Your task to perform on an android device: clear all cookies in the chrome app Image 0: 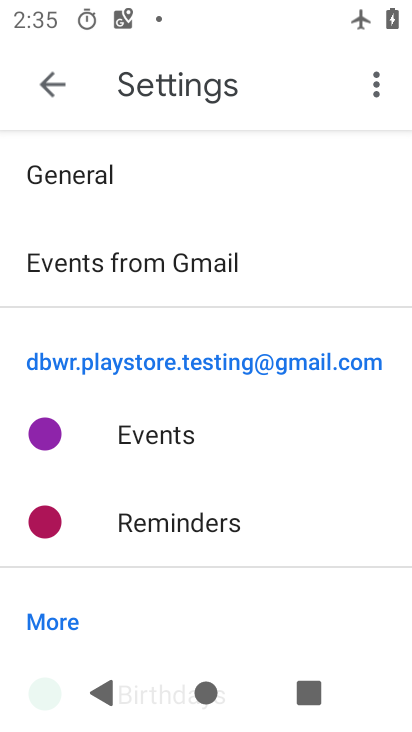
Step 0: press home button
Your task to perform on an android device: clear all cookies in the chrome app Image 1: 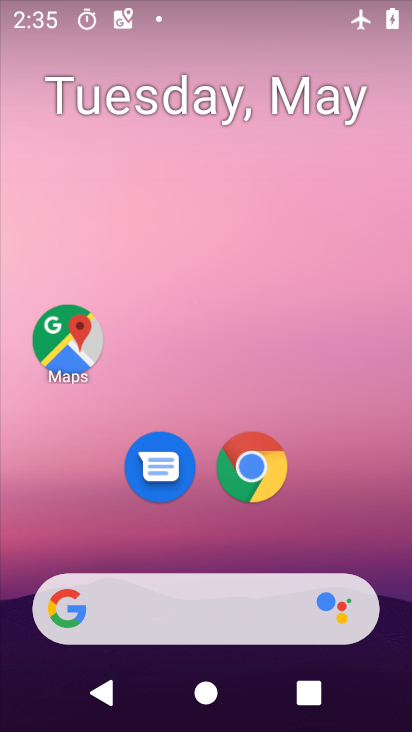
Step 1: drag from (363, 525) to (339, 114)
Your task to perform on an android device: clear all cookies in the chrome app Image 2: 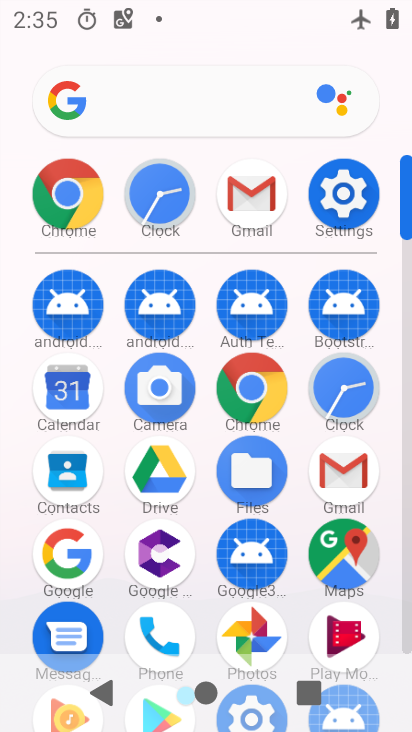
Step 2: click (279, 384)
Your task to perform on an android device: clear all cookies in the chrome app Image 3: 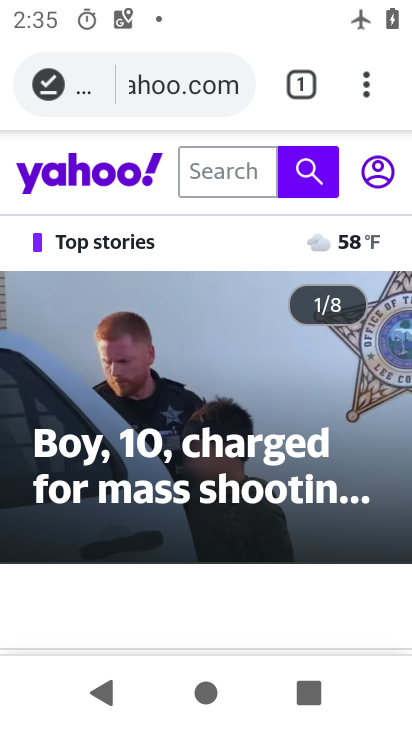
Step 3: click (366, 92)
Your task to perform on an android device: clear all cookies in the chrome app Image 4: 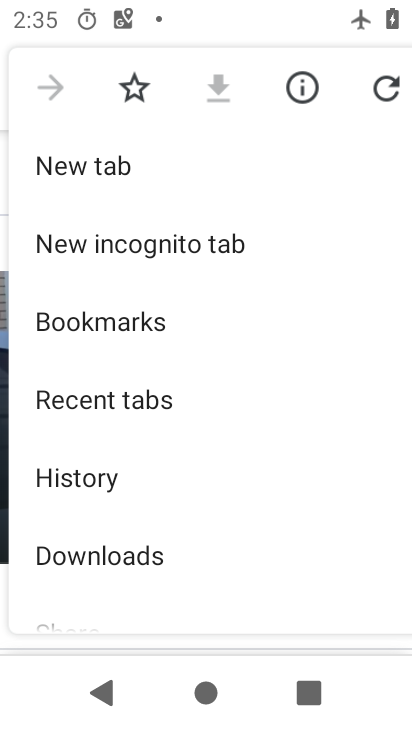
Step 4: drag from (303, 490) to (303, 304)
Your task to perform on an android device: clear all cookies in the chrome app Image 5: 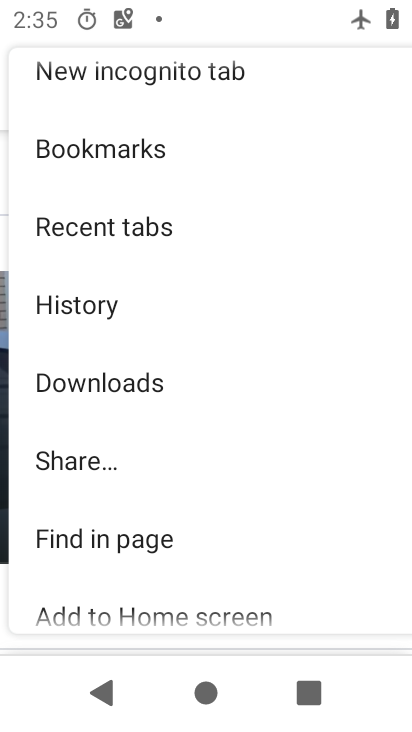
Step 5: drag from (319, 505) to (323, 314)
Your task to perform on an android device: clear all cookies in the chrome app Image 6: 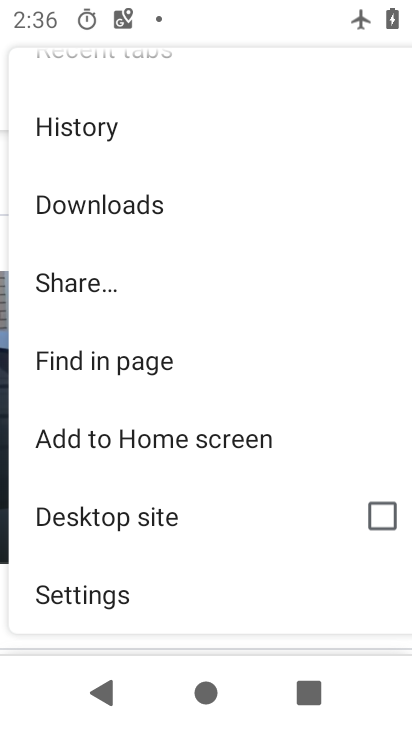
Step 6: drag from (269, 532) to (279, 303)
Your task to perform on an android device: clear all cookies in the chrome app Image 7: 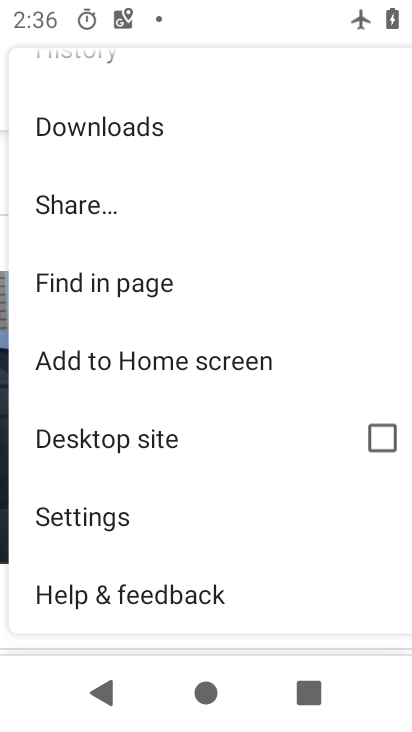
Step 7: click (104, 515)
Your task to perform on an android device: clear all cookies in the chrome app Image 8: 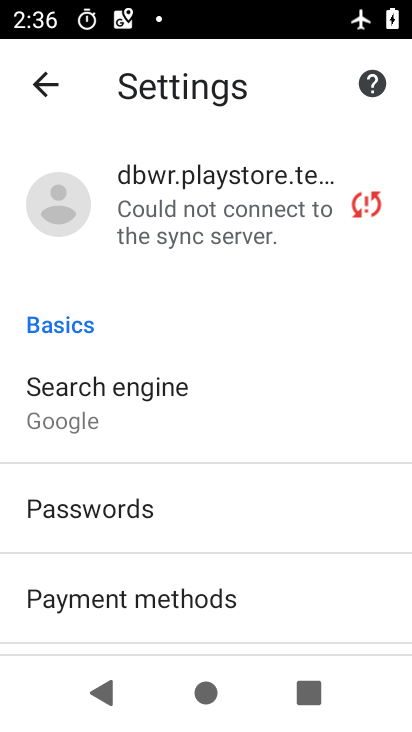
Step 8: drag from (320, 551) to (327, 407)
Your task to perform on an android device: clear all cookies in the chrome app Image 9: 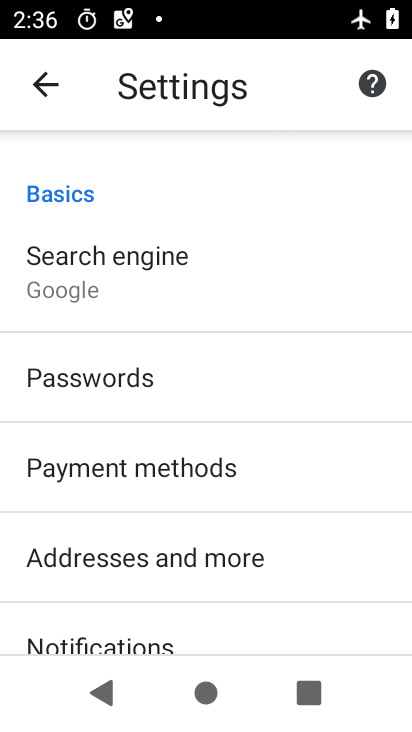
Step 9: drag from (335, 584) to (321, 379)
Your task to perform on an android device: clear all cookies in the chrome app Image 10: 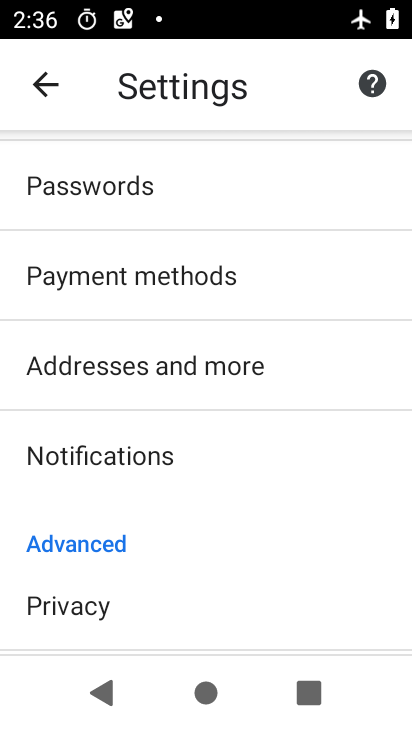
Step 10: drag from (339, 491) to (339, 325)
Your task to perform on an android device: clear all cookies in the chrome app Image 11: 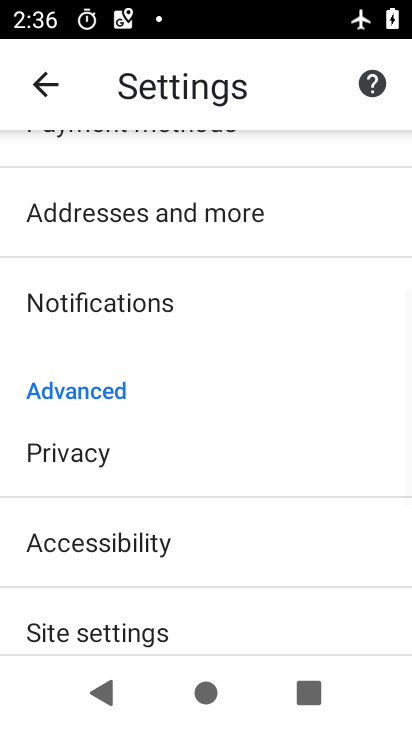
Step 11: drag from (327, 569) to (326, 385)
Your task to perform on an android device: clear all cookies in the chrome app Image 12: 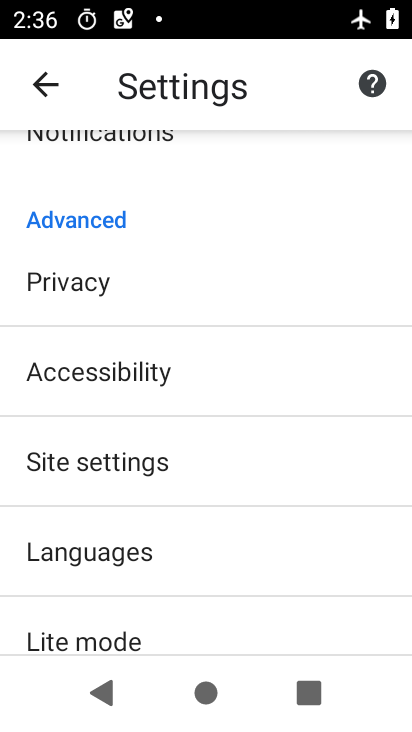
Step 12: drag from (310, 571) to (308, 458)
Your task to perform on an android device: clear all cookies in the chrome app Image 13: 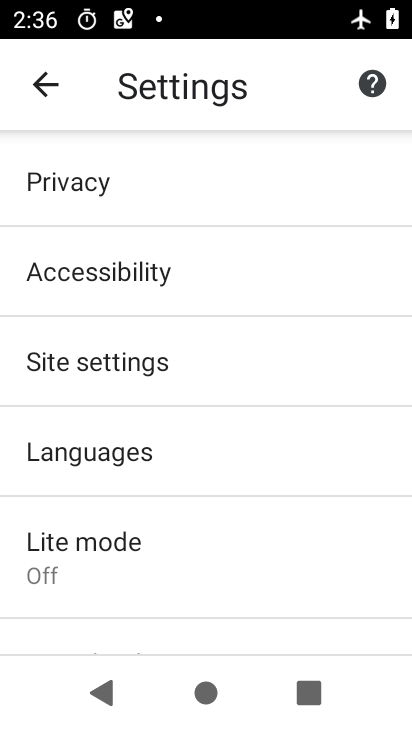
Step 13: click (251, 208)
Your task to perform on an android device: clear all cookies in the chrome app Image 14: 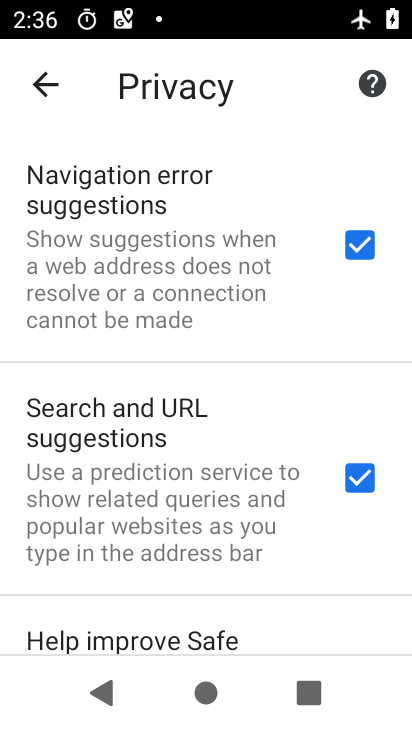
Step 14: drag from (281, 516) to (285, 417)
Your task to perform on an android device: clear all cookies in the chrome app Image 15: 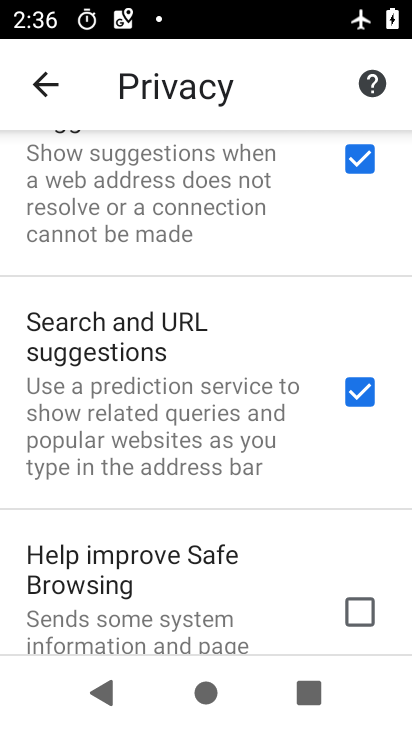
Step 15: drag from (278, 550) to (278, 441)
Your task to perform on an android device: clear all cookies in the chrome app Image 16: 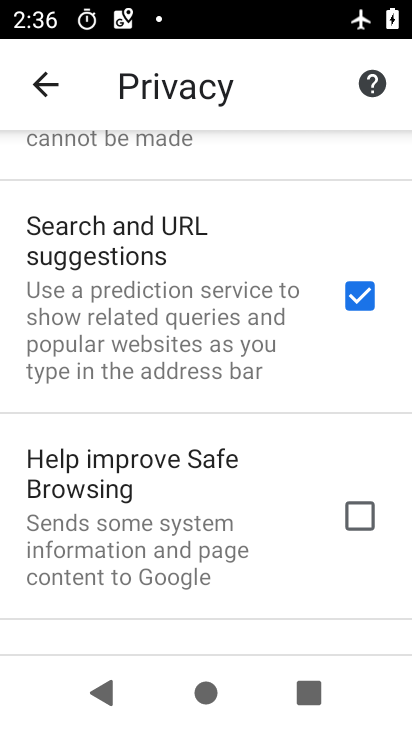
Step 16: drag from (264, 553) to (261, 429)
Your task to perform on an android device: clear all cookies in the chrome app Image 17: 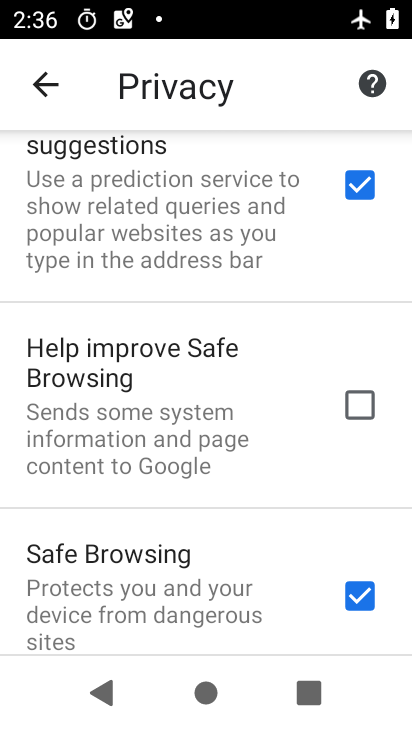
Step 17: drag from (263, 541) to (270, 294)
Your task to perform on an android device: clear all cookies in the chrome app Image 18: 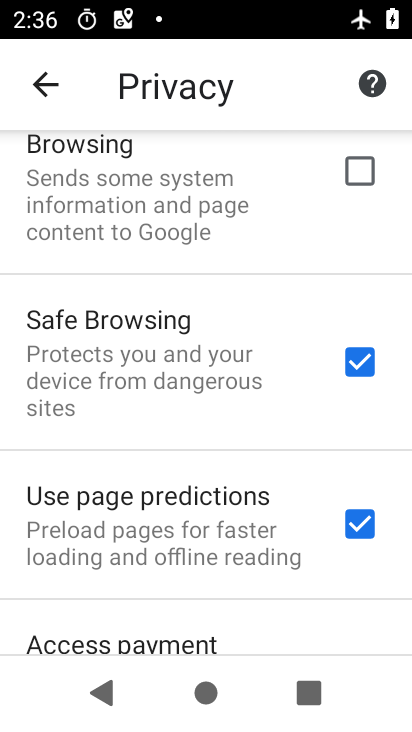
Step 18: drag from (302, 550) to (301, 384)
Your task to perform on an android device: clear all cookies in the chrome app Image 19: 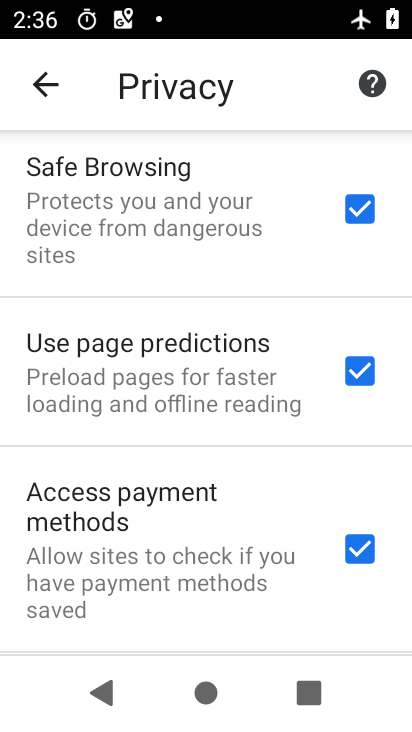
Step 19: drag from (301, 585) to (287, 388)
Your task to perform on an android device: clear all cookies in the chrome app Image 20: 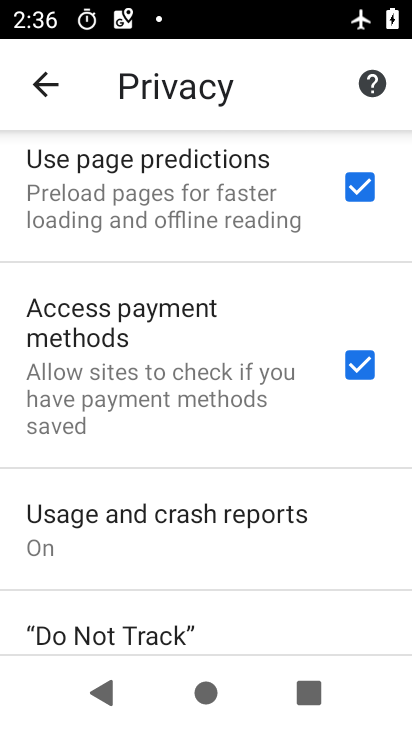
Step 20: drag from (286, 582) to (287, 450)
Your task to perform on an android device: clear all cookies in the chrome app Image 21: 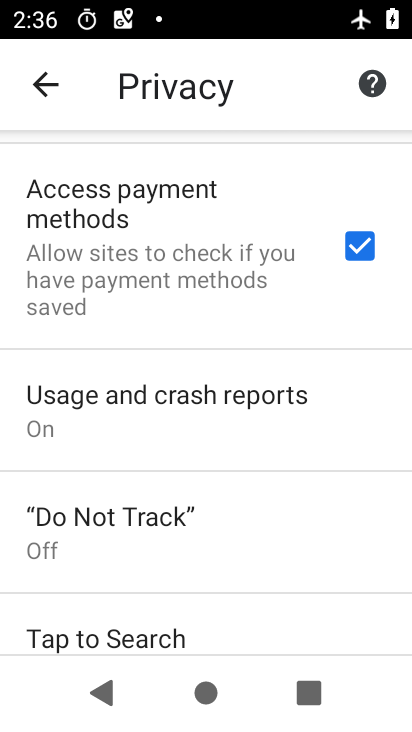
Step 21: drag from (314, 564) to (325, 444)
Your task to perform on an android device: clear all cookies in the chrome app Image 22: 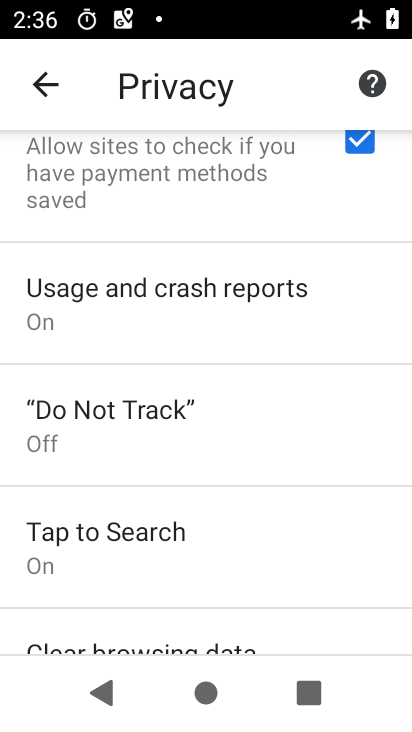
Step 22: drag from (315, 600) to (324, 451)
Your task to perform on an android device: clear all cookies in the chrome app Image 23: 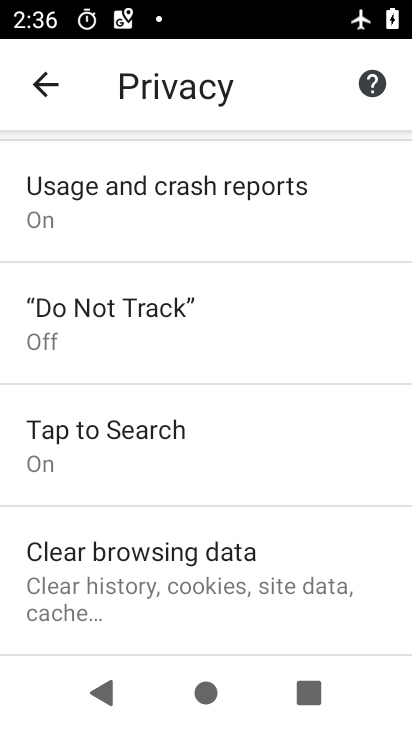
Step 23: click (309, 564)
Your task to perform on an android device: clear all cookies in the chrome app Image 24: 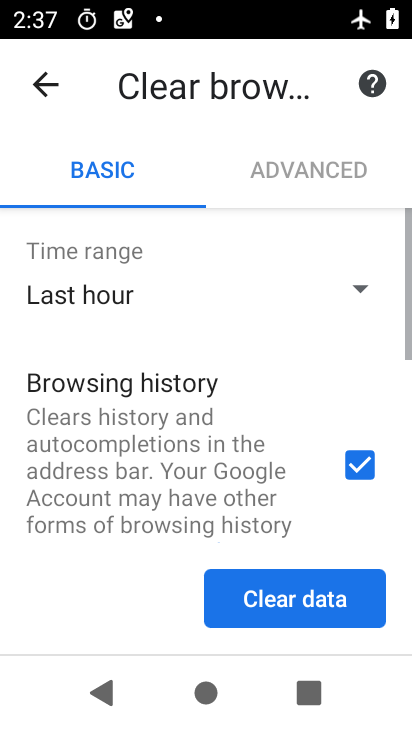
Step 24: click (308, 605)
Your task to perform on an android device: clear all cookies in the chrome app Image 25: 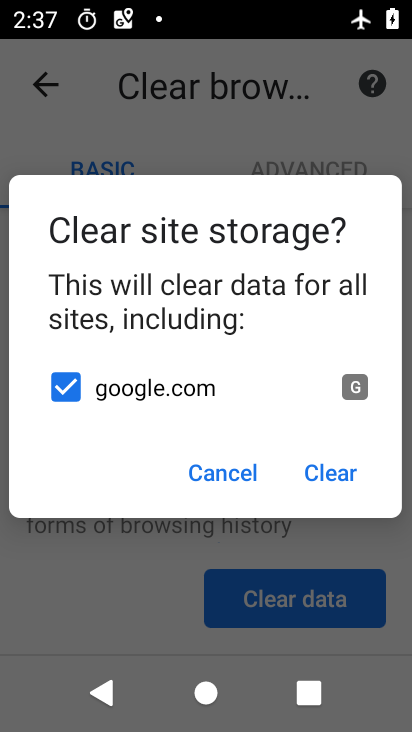
Step 25: click (331, 480)
Your task to perform on an android device: clear all cookies in the chrome app Image 26: 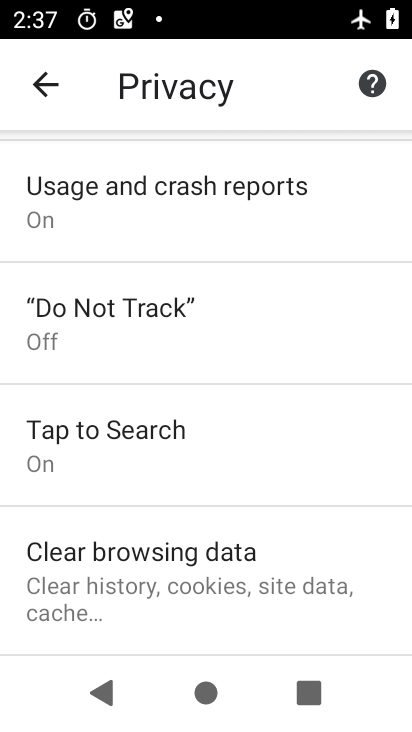
Step 26: task complete